Your task to perform on an android device: Search for Mexican restaurants on Maps Image 0: 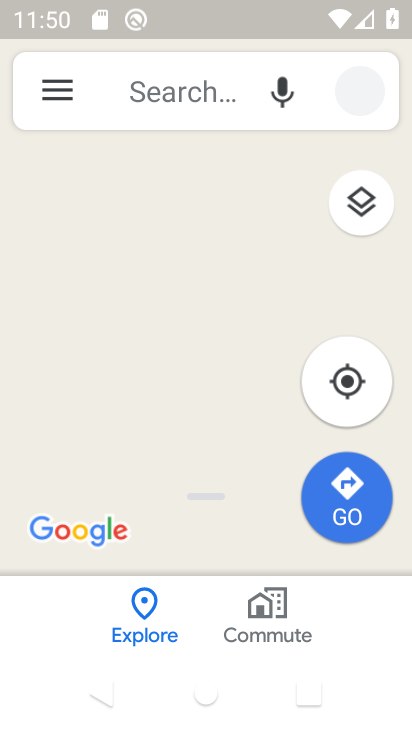
Step 0: press home button
Your task to perform on an android device: Search for Mexican restaurants on Maps Image 1: 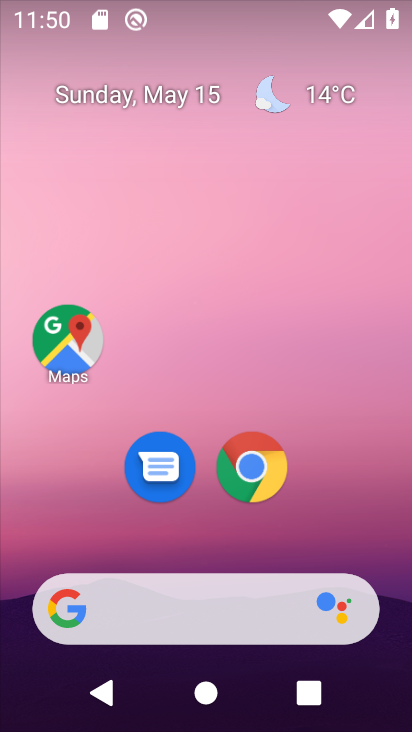
Step 1: click (68, 326)
Your task to perform on an android device: Search for Mexican restaurants on Maps Image 2: 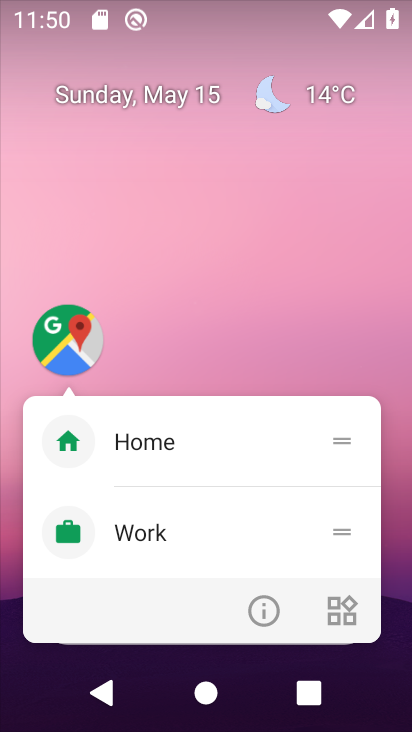
Step 2: click (72, 335)
Your task to perform on an android device: Search for Mexican restaurants on Maps Image 3: 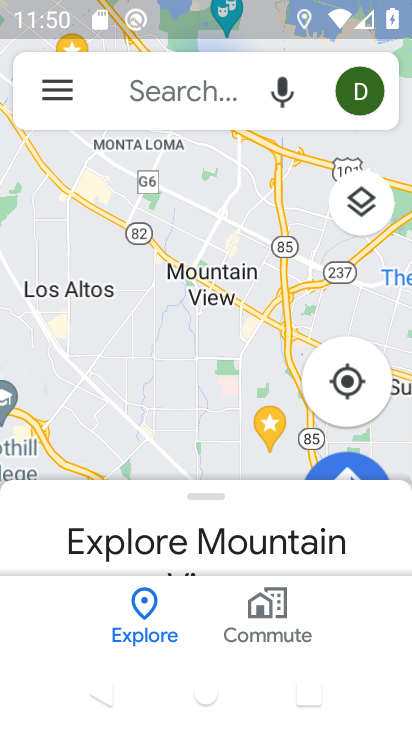
Step 3: click (158, 82)
Your task to perform on an android device: Search for Mexican restaurants on Maps Image 4: 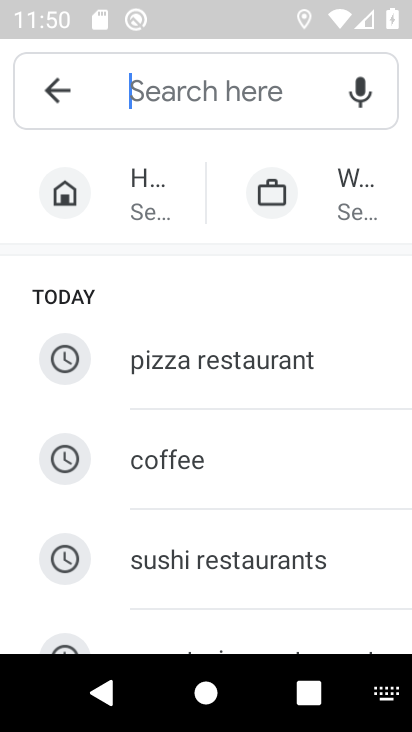
Step 4: drag from (270, 544) to (268, 58)
Your task to perform on an android device: Search for Mexican restaurants on Maps Image 5: 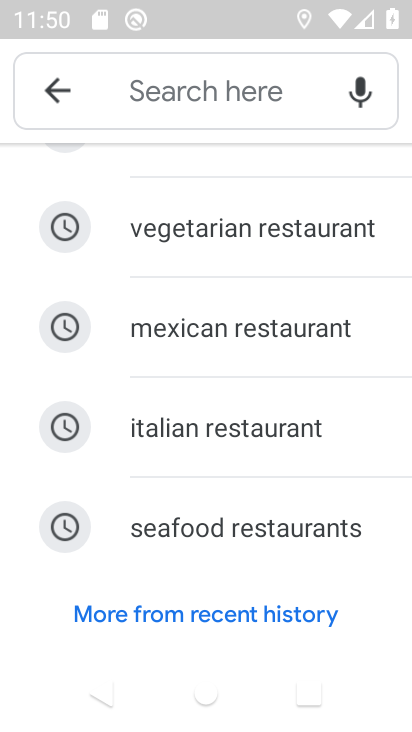
Step 5: click (218, 336)
Your task to perform on an android device: Search for Mexican restaurants on Maps Image 6: 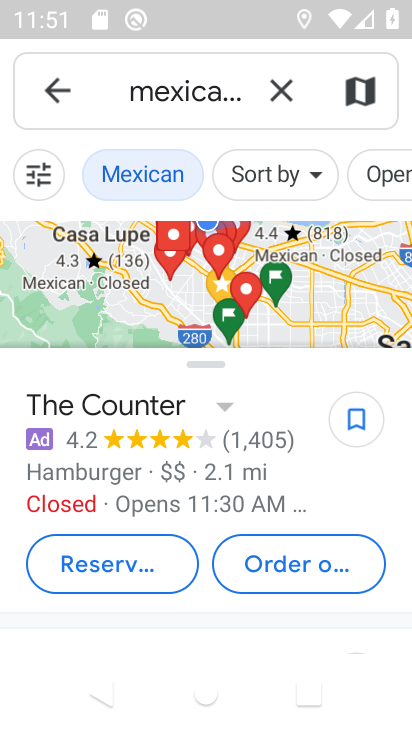
Step 6: task complete